Your task to perform on an android device: turn notification dots on Image 0: 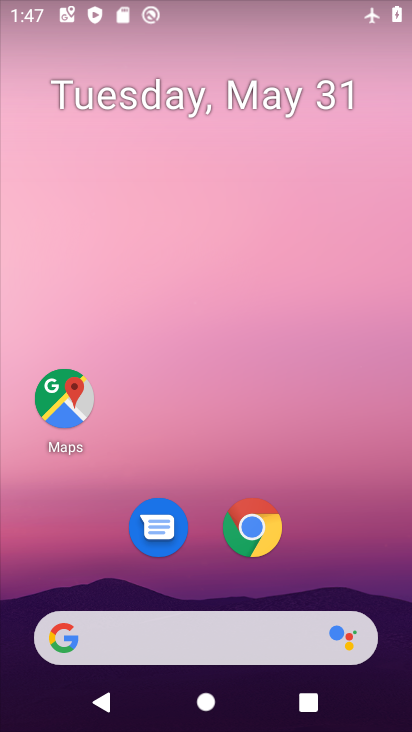
Step 0: drag from (375, 388) to (407, 18)
Your task to perform on an android device: turn notification dots on Image 1: 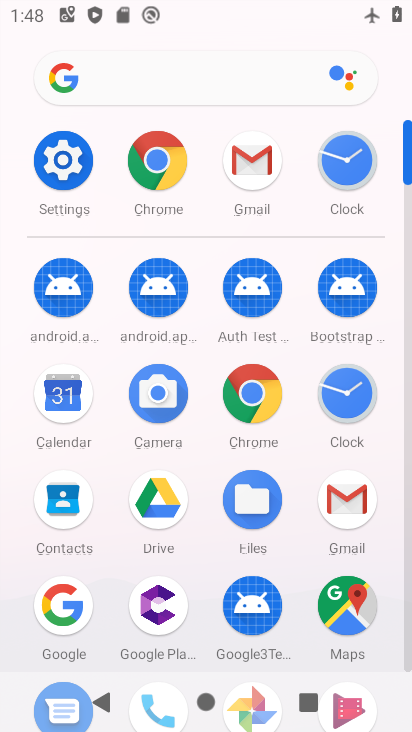
Step 1: click (55, 152)
Your task to perform on an android device: turn notification dots on Image 2: 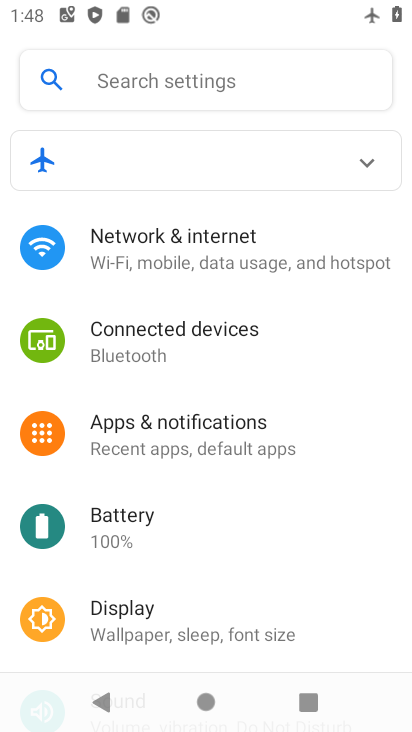
Step 2: click (213, 425)
Your task to perform on an android device: turn notification dots on Image 3: 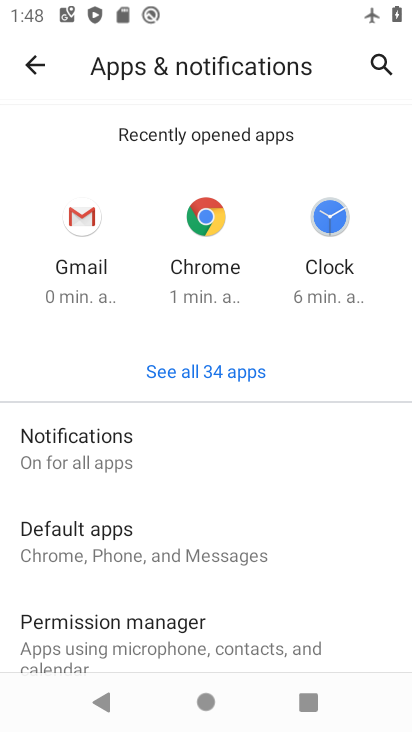
Step 3: click (26, 438)
Your task to perform on an android device: turn notification dots on Image 4: 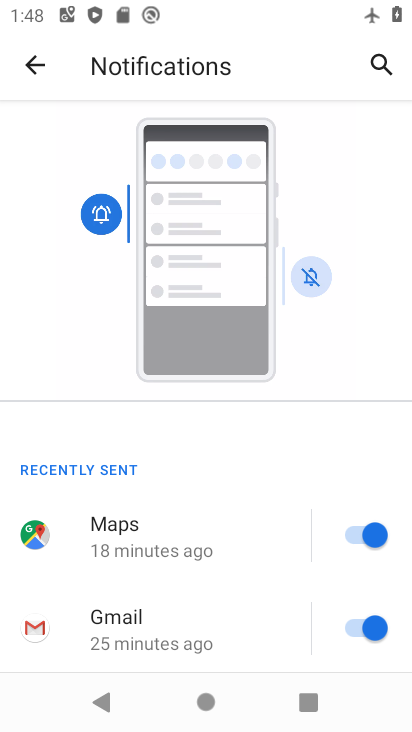
Step 4: drag from (97, 578) to (143, 233)
Your task to perform on an android device: turn notification dots on Image 5: 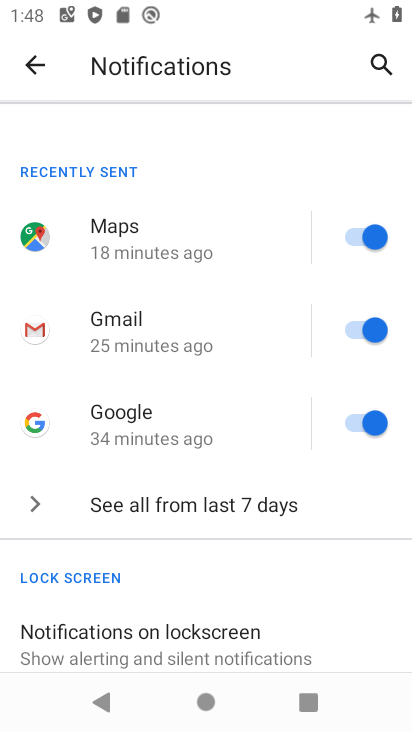
Step 5: drag from (129, 534) to (197, 196)
Your task to perform on an android device: turn notification dots on Image 6: 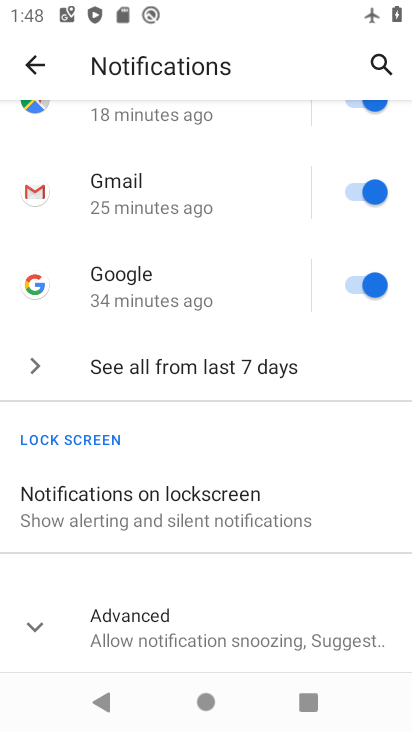
Step 6: click (150, 612)
Your task to perform on an android device: turn notification dots on Image 7: 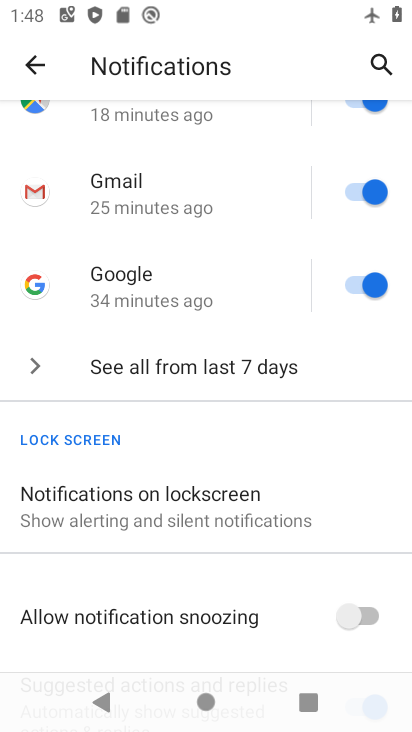
Step 7: task complete